Your task to perform on an android device: turn on notifications settings in the gmail app Image 0: 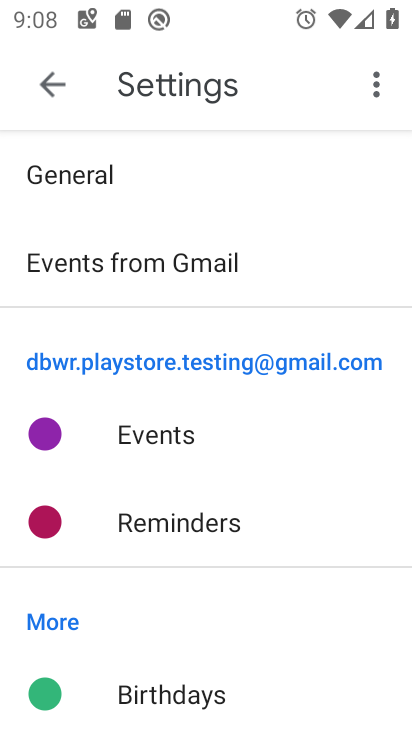
Step 0: press home button
Your task to perform on an android device: turn on notifications settings in the gmail app Image 1: 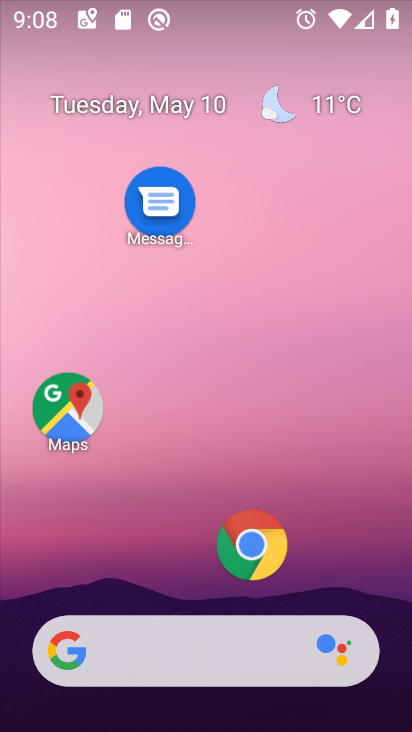
Step 1: drag from (237, 282) to (251, 119)
Your task to perform on an android device: turn on notifications settings in the gmail app Image 2: 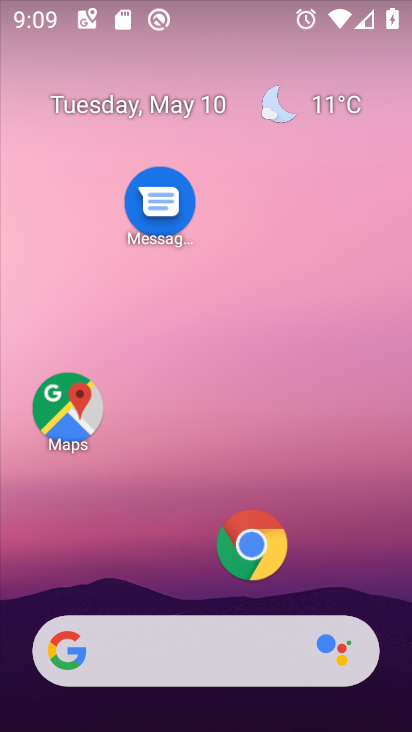
Step 2: drag from (194, 580) to (234, 64)
Your task to perform on an android device: turn on notifications settings in the gmail app Image 3: 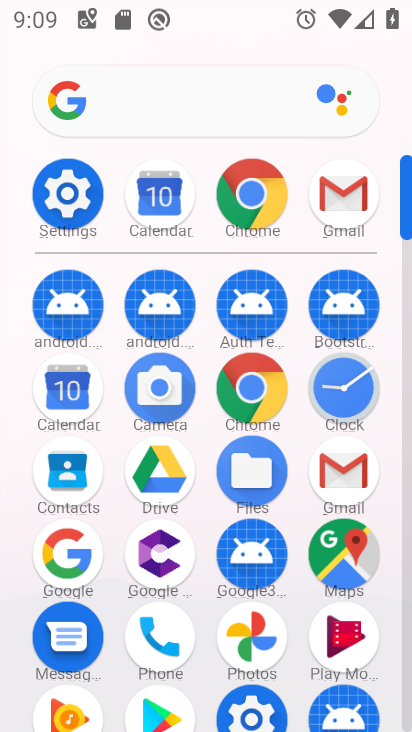
Step 3: click (339, 188)
Your task to perform on an android device: turn on notifications settings in the gmail app Image 4: 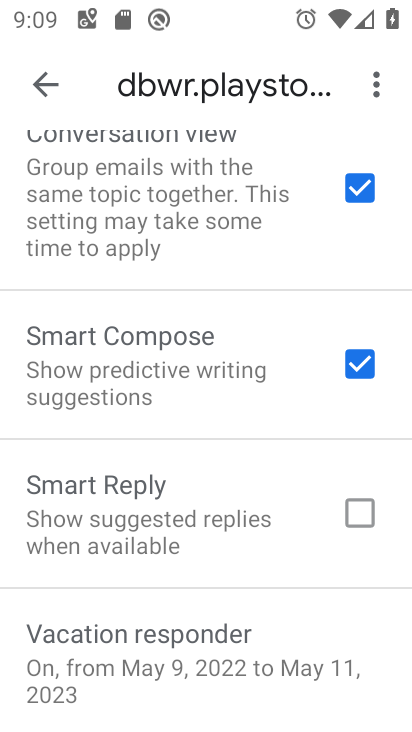
Step 4: click (52, 83)
Your task to perform on an android device: turn on notifications settings in the gmail app Image 5: 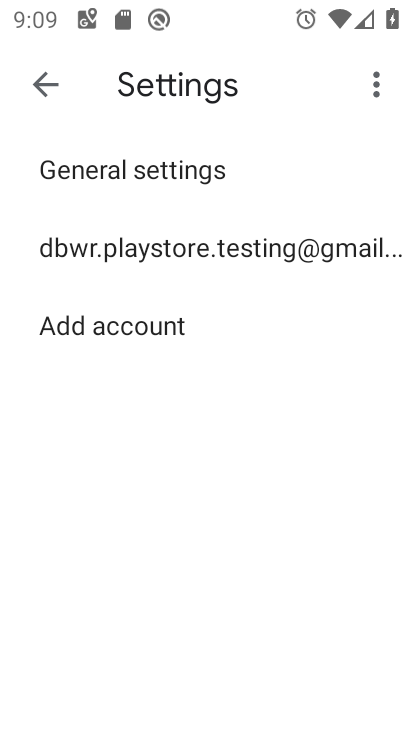
Step 5: click (221, 170)
Your task to perform on an android device: turn on notifications settings in the gmail app Image 6: 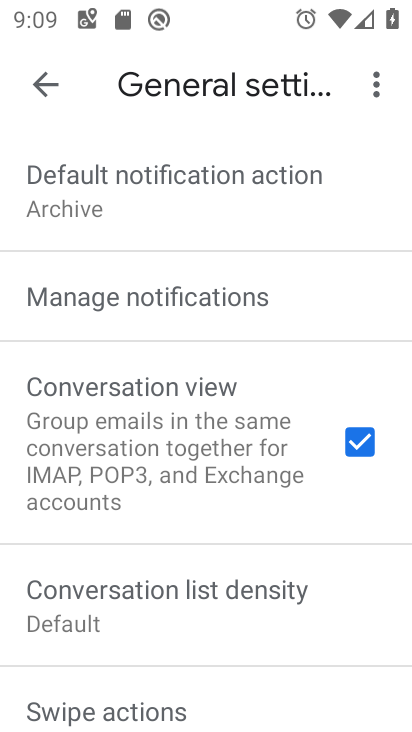
Step 6: click (238, 302)
Your task to perform on an android device: turn on notifications settings in the gmail app Image 7: 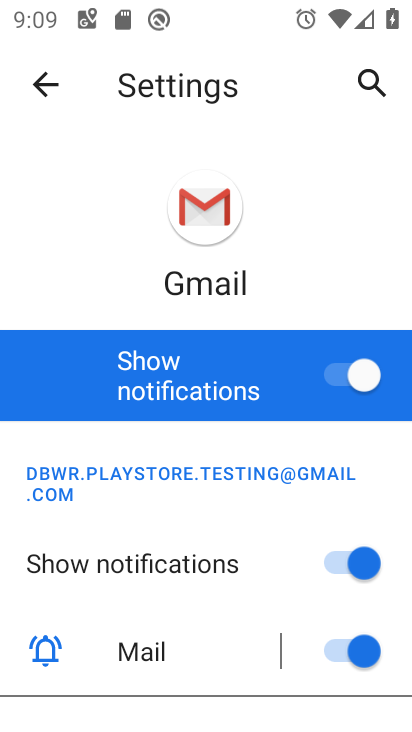
Step 7: task complete